Your task to perform on an android device: Toggle the flashlight Image 0: 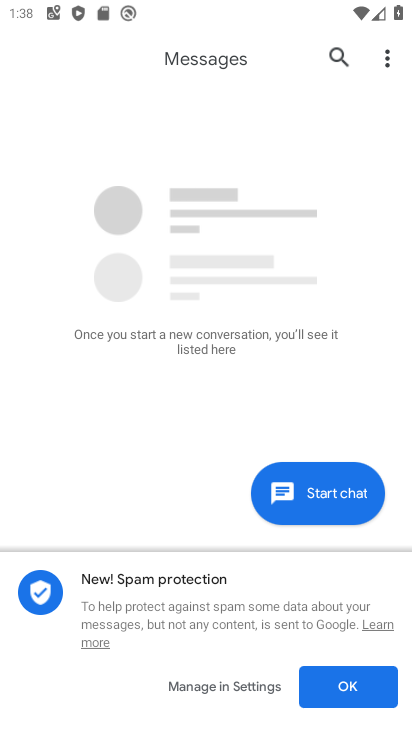
Step 0: drag from (199, 17) to (60, 677)
Your task to perform on an android device: Toggle the flashlight Image 1: 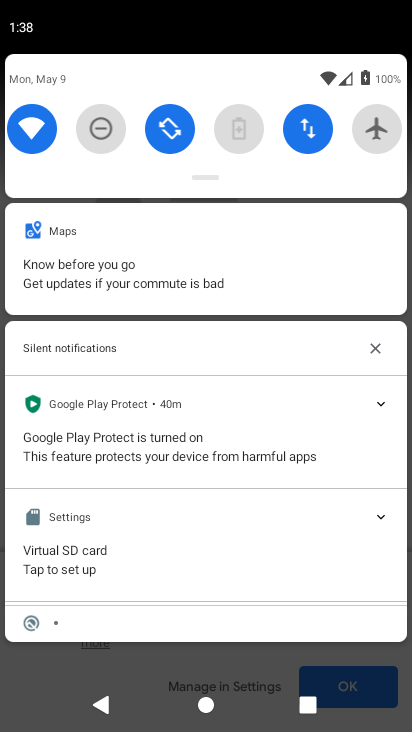
Step 1: drag from (210, 94) to (240, 605)
Your task to perform on an android device: Toggle the flashlight Image 2: 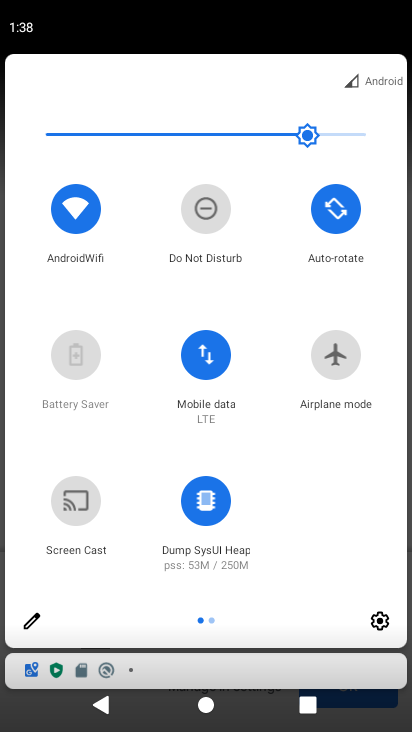
Step 2: click (382, 630)
Your task to perform on an android device: Toggle the flashlight Image 3: 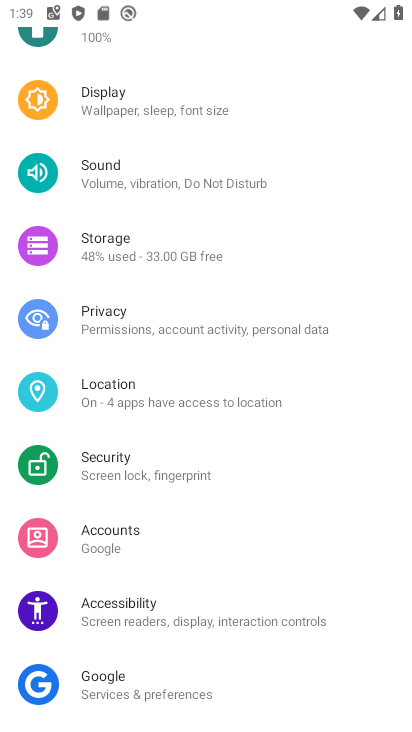
Step 3: task complete